Your task to perform on an android device: toggle priority inbox in the gmail app Image 0: 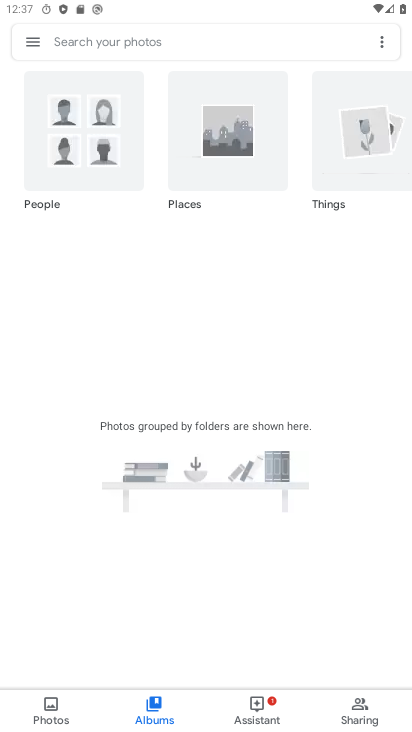
Step 0: drag from (251, 573) to (270, 223)
Your task to perform on an android device: toggle priority inbox in the gmail app Image 1: 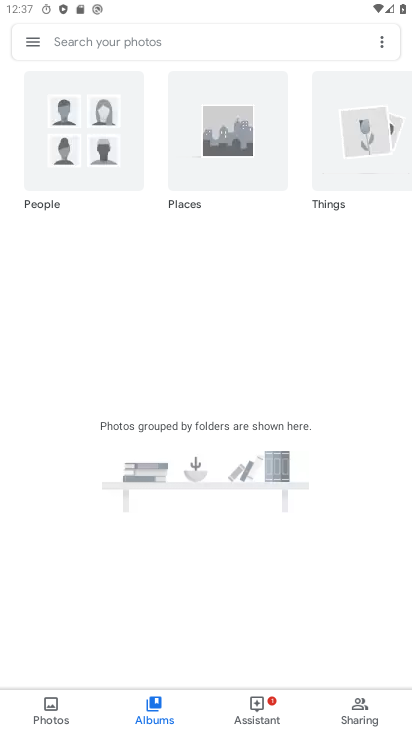
Step 1: press home button
Your task to perform on an android device: toggle priority inbox in the gmail app Image 2: 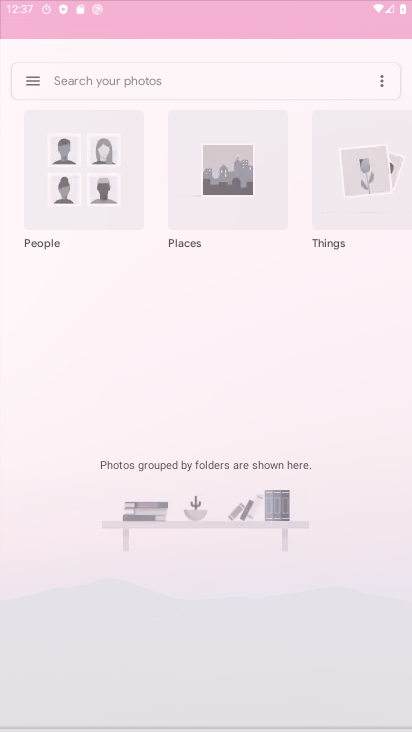
Step 2: drag from (247, 447) to (311, 65)
Your task to perform on an android device: toggle priority inbox in the gmail app Image 3: 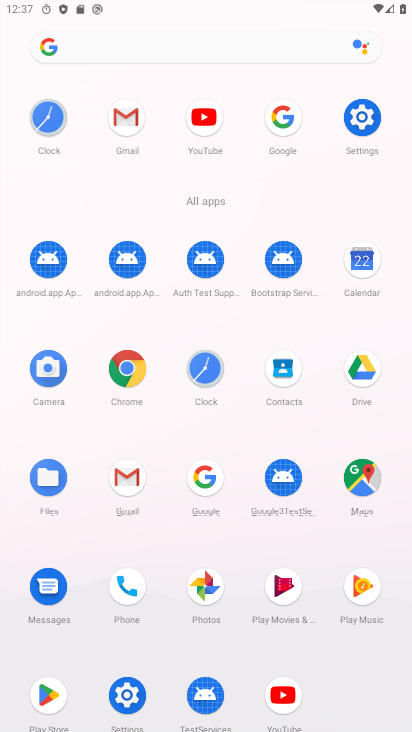
Step 3: click (118, 482)
Your task to perform on an android device: toggle priority inbox in the gmail app Image 4: 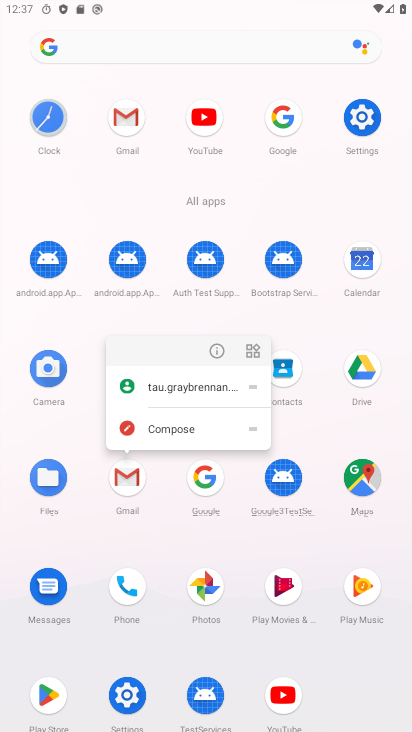
Step 4: click (217, 353)
Your task to perform on an android device: toggle priority inbox in the gmail app Image 5: 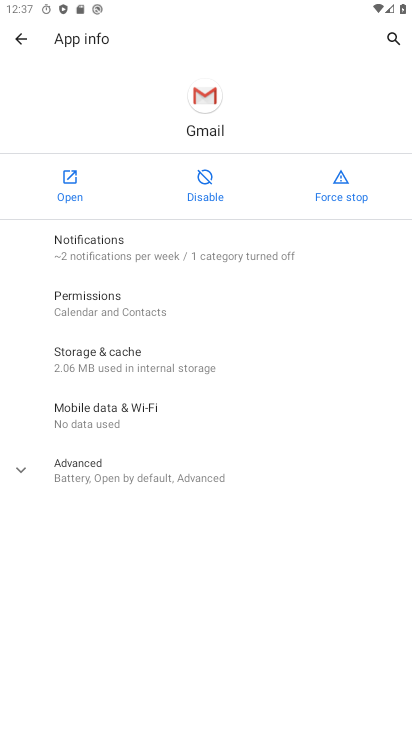
Step 5: click (70, 196)
Your task to perform on an android device: toggle priority inbox in the gmail app Image 6: 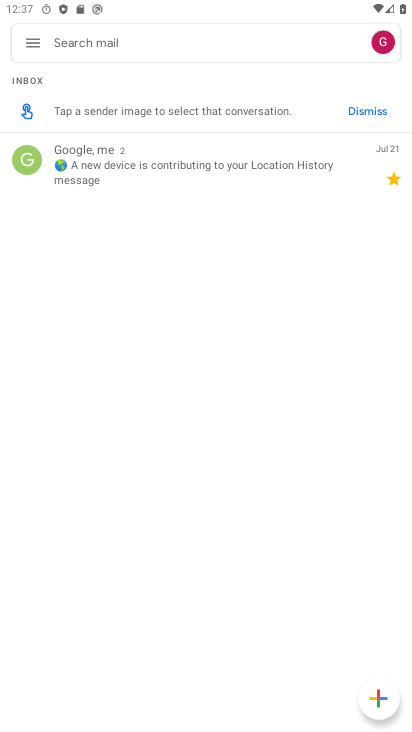
Step 6: click (40, 41)
Your task to perform on an android device: toggle priority inbox in the gmail app Image 7: 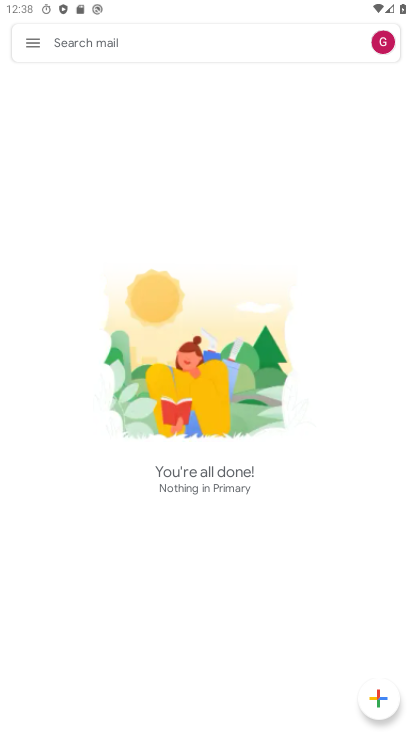
Step 7: drag from (240, 411) to (250, 257)
Your task to perform on an android device: toggle priority inbox in the gmail app Image 8: 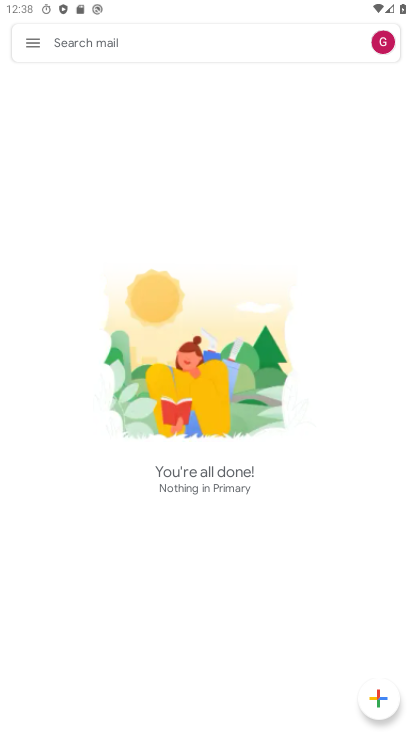
Step 8: drag from (218, 628) to (241, 263)
Your task to perform on an android device: toggle priority inbox in the gmail app Image 9: 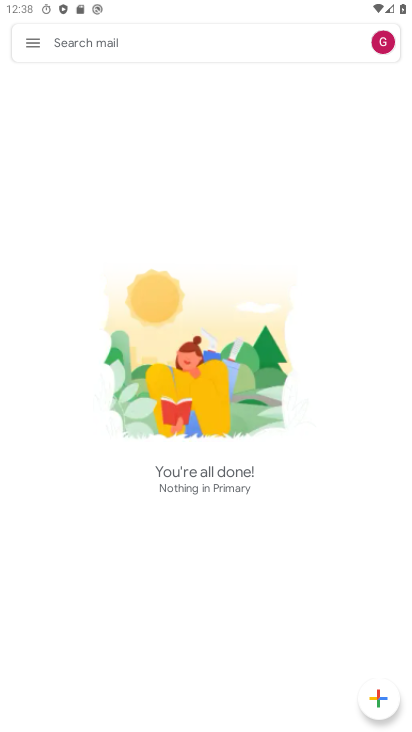
Step 9: click (36, 43)
Your task to perform on an android device: toggle priority inbox in the gmail app Image 10: 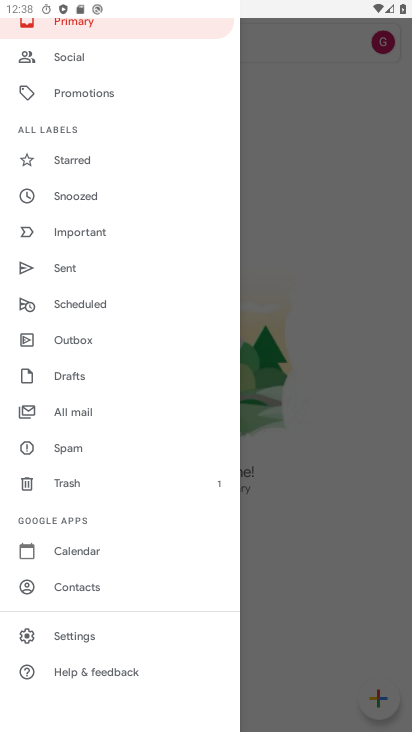
Step 10: drag from (82, 613) to (171, 213)
Your task to perform on an android device: toggle priority inbox in the gmail app Image 11: 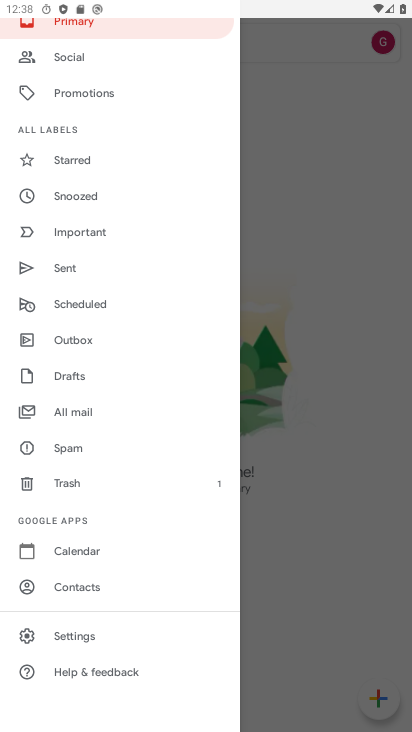
Step 11: click (69, 634)
Your task to perform on an android device: toggle priority inbox in the gmail app Image 12: 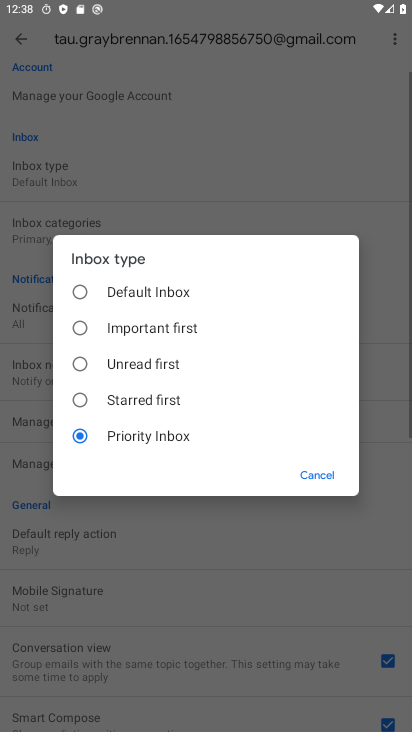
Step 12: drag from (183, 594) to (233, 186)
Your task to perform on an android device: toggle priority inbox in the gmail app Image 13: 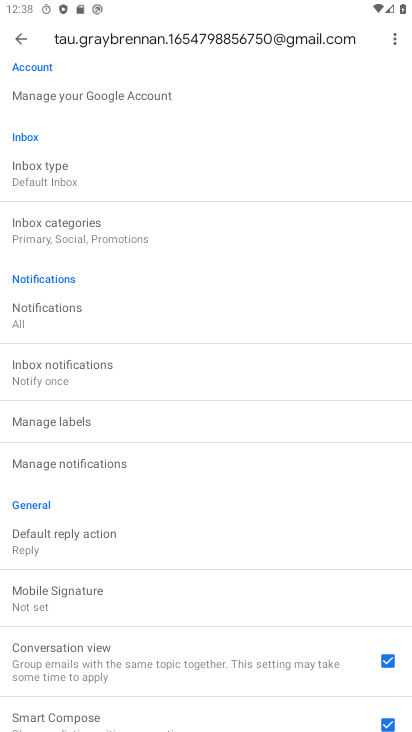
Step 13: click (72, 182)
Your task to perform on an android device: toggle priority inbox in the gmail app Image 14: 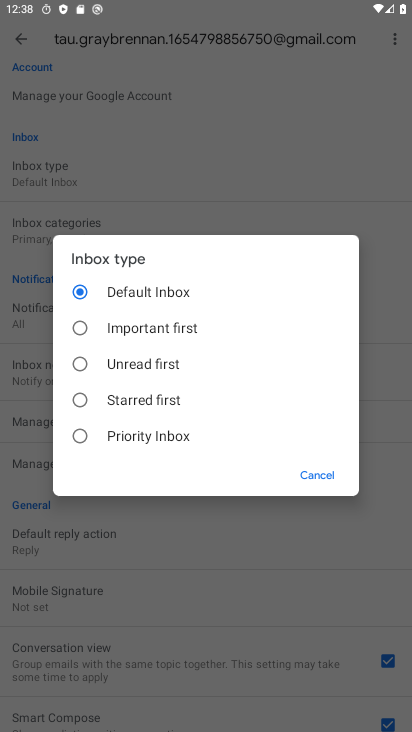
Step 14: click (105, 433)
Your task to perform on an android device: toggle priority inbox in the gmail app Image 15: 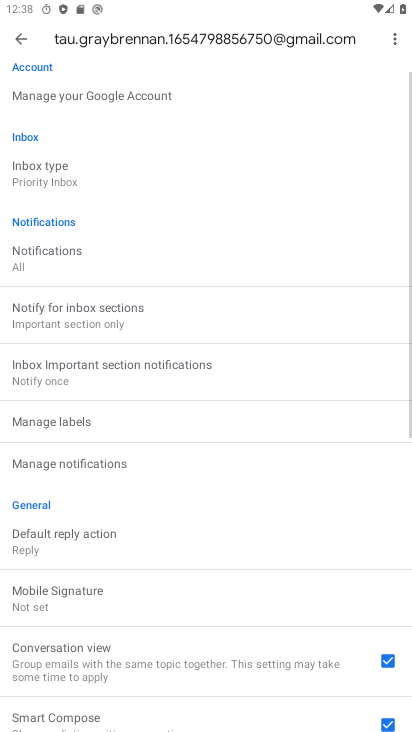
Step 15: task complete